Your task to perform on an android device: Open Google Maps and go to "Timeline" Image 0: 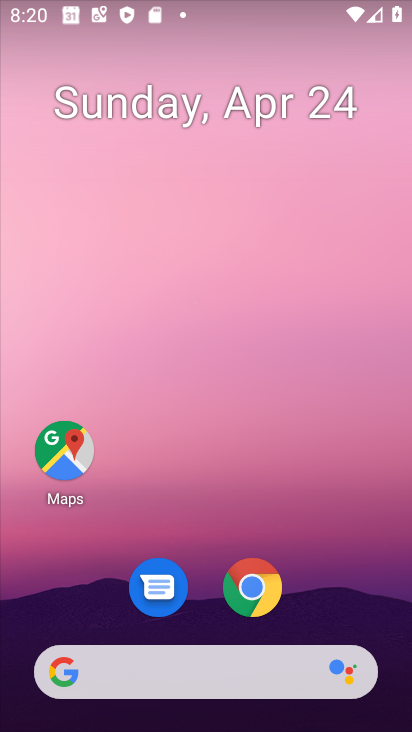
Step 0: click (70, 468)
Your task to perform on an android device: Open Google Maps and go to "Timeline" Image 1: 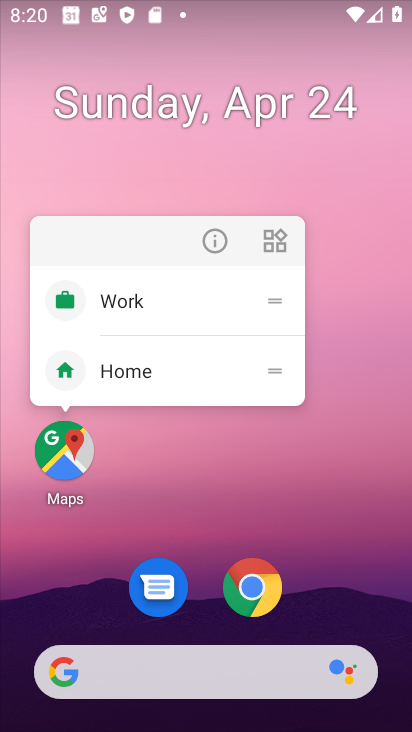
Step 1: click (72, 470)
Your task to perform on an android device: Open Google Maps and go to "Timeline" Image 2: 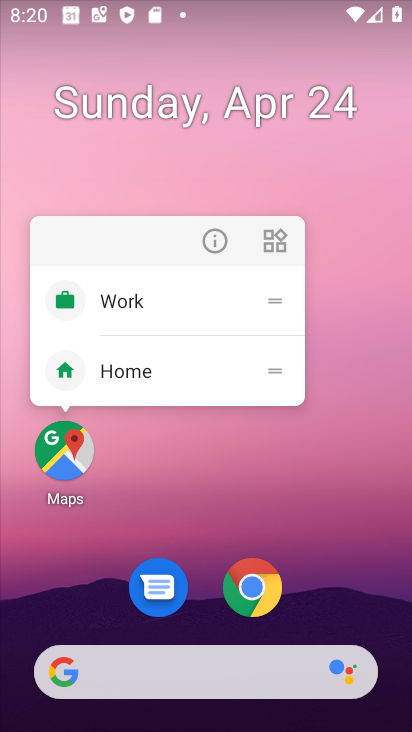
Step 2: click (72, 471)
Your task to perform on an android device: Open Google Maps and go to "Timeline" Image 3: 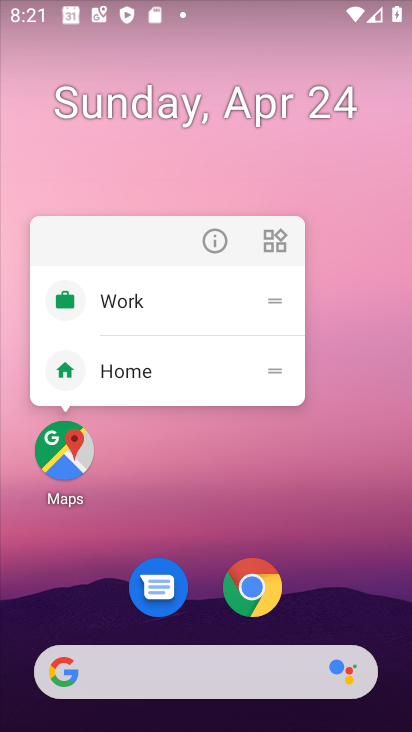
Step 3: click (72, 471)
Your task to perform on an android device: Open Google Maps and go to "Timeline" Image 4: 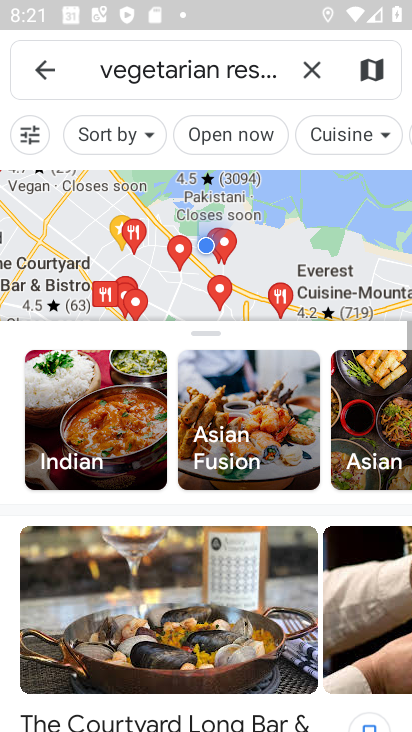
Step 4: click (37, 72)
Your task to perform on an android device: Open Google Maps and go to "Timeline" Image 5: 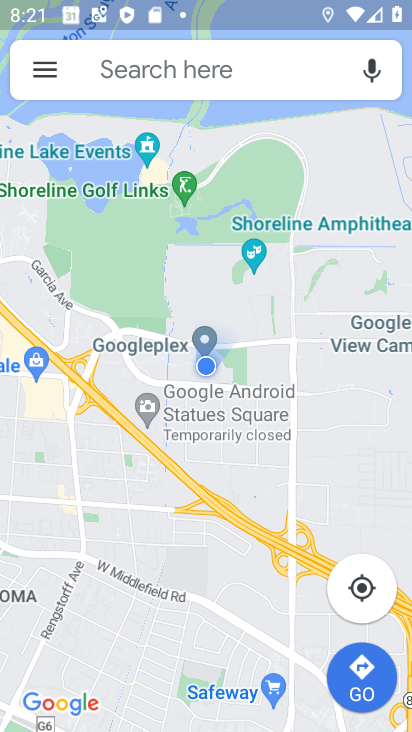
Step 5: click (36, 75)
Your task to perform on an android device: Open Google Maps and go to "Timeline" Image 6: 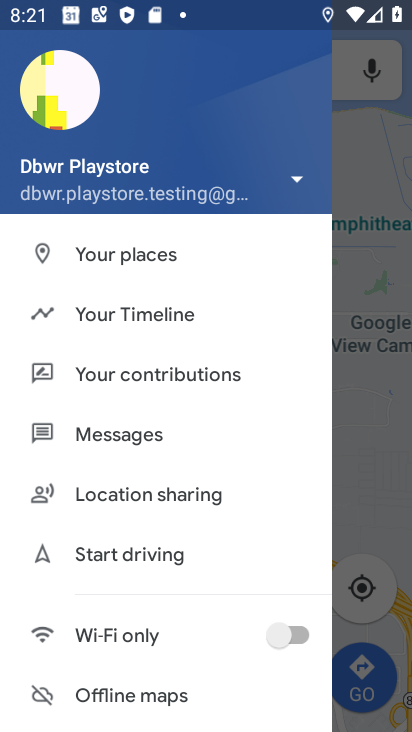
Step 6: click (96, 313)
Your task to perform on an android device: Open Google Maps and go to "Timeline" Image 7: 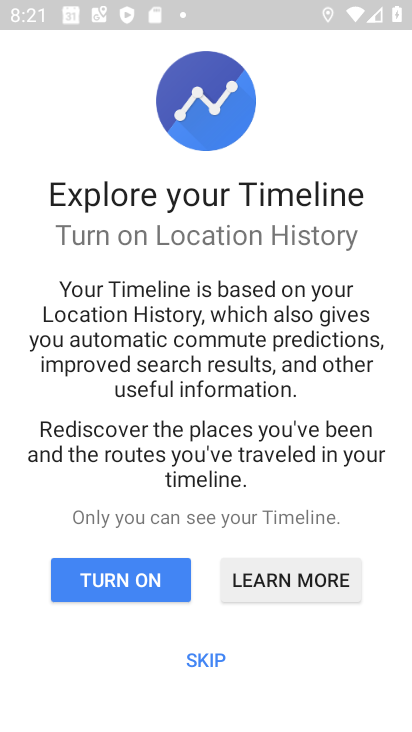
Step 7: click (206, 658)
Your task to perform on an android device: Open Google Maps and go to "Timeline" Image 8: 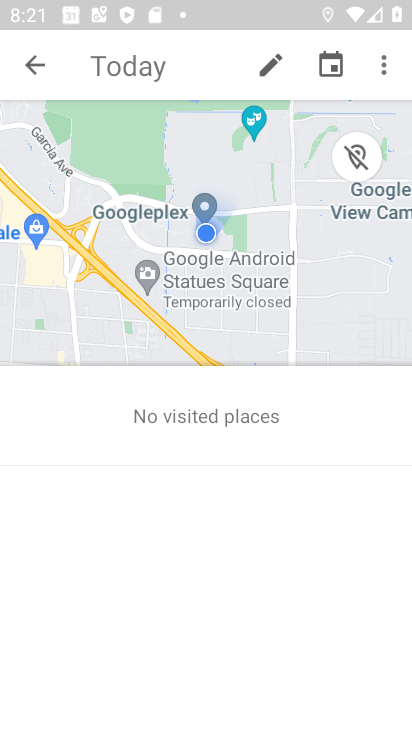
Step 8: task complete